Your task to perform on an android device: Open Google Maps Image 0: 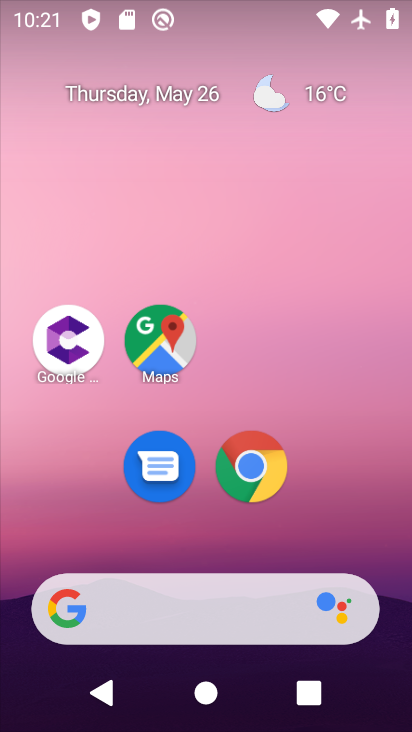
Step 0: click (154, 331)
Your task to perform on an android device: Open Google Maps Image 1: 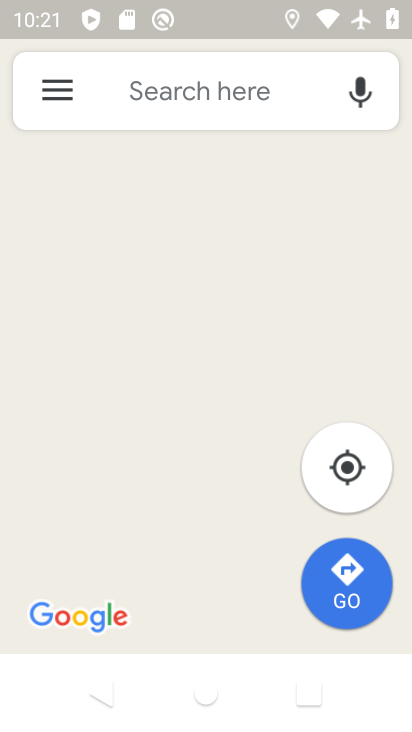
Step 1: task complete